Your task to perform on an android device: change the clock display to digital Image 0: 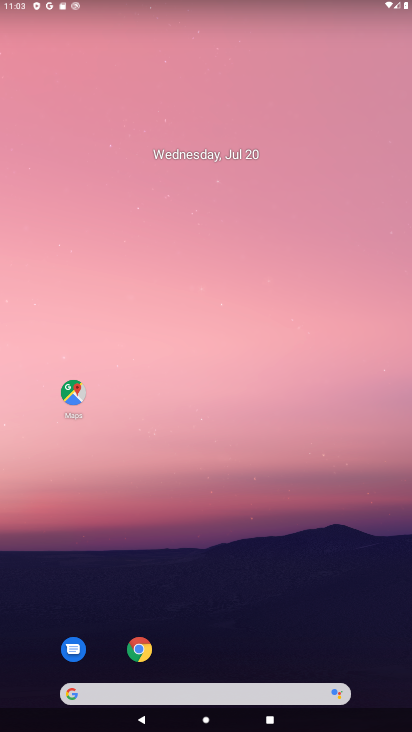
Step 0: drag from (170, 634) to (170, 450)
Your task to perform on an android device: change the clock display to digital Image 1: 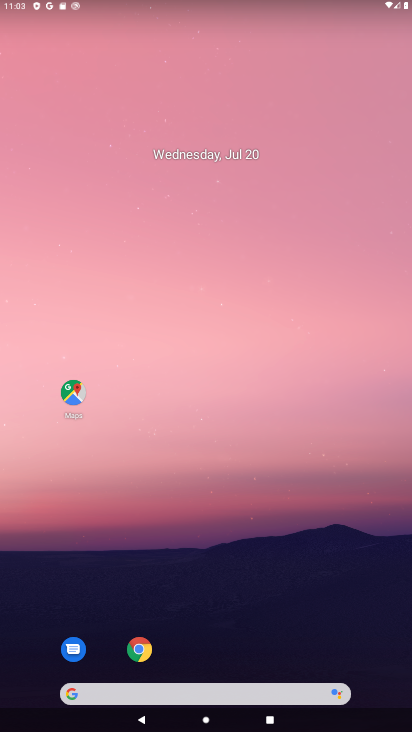
Step 1: drag from (196, 683) to (198, 112)
Your task to perform on an android device: change the clock display to digital Image 2: 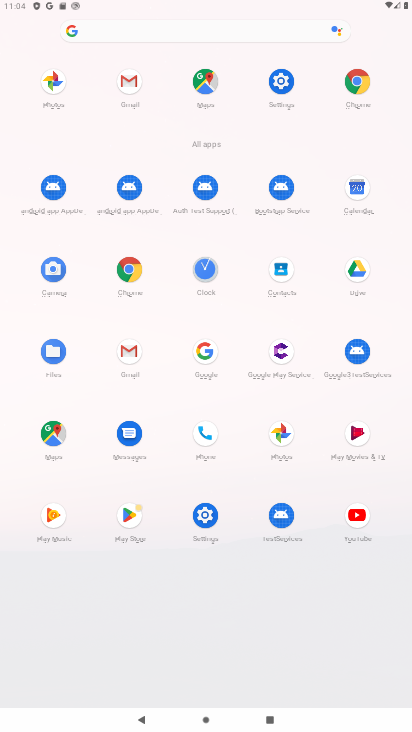
Step 2: click (203, 273)
Your task to perform on an android device: change the clock display to digital Image 3: 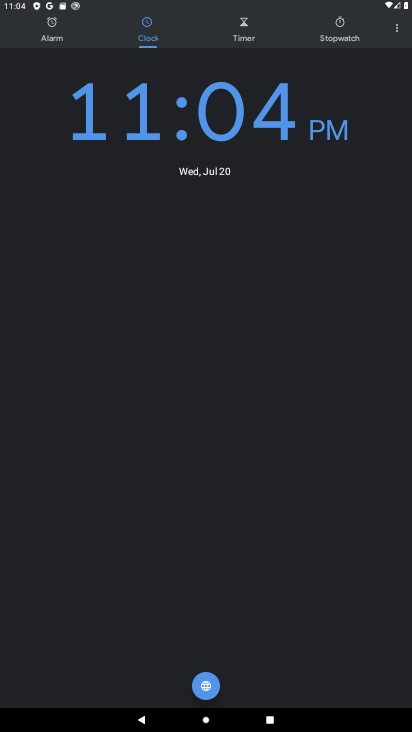
Step 3: click (395, 33)
Your task to perform on an android device: change the clock display to digital Image 4: 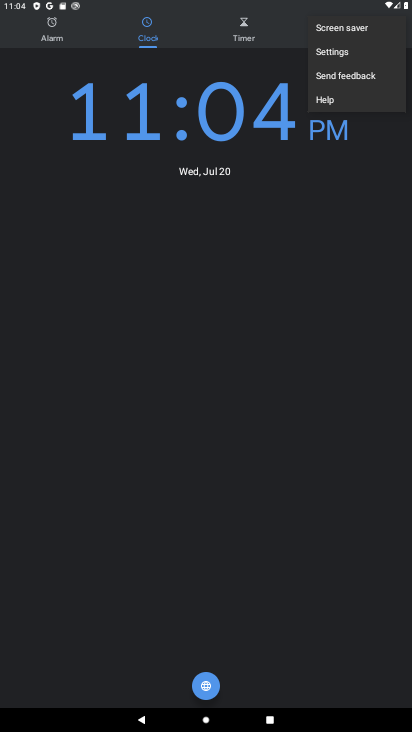
Step 4: click (348, 48)
Your task to perform on an android device: change the clock display to digital Image 5: 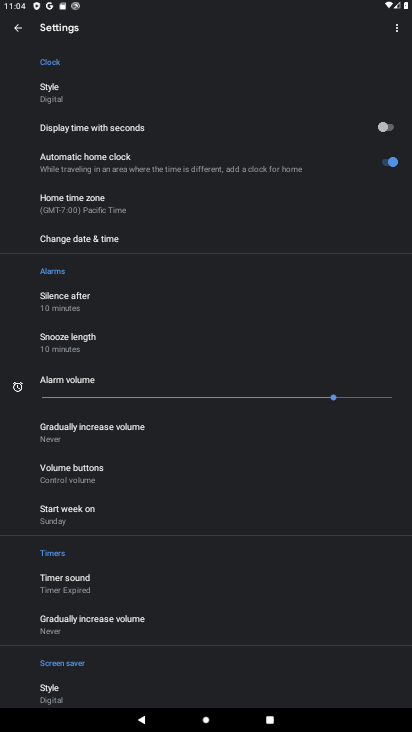
Step 5: click (75, 92)
Your task to perform on an android device: change the clock display to digital Image 6: 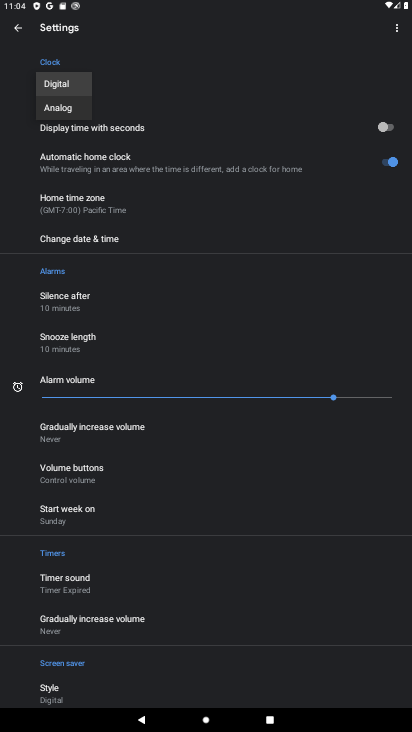
Step 6: click (53, 82)
Your task to perform on an android device: change the clock display to digital Image 7: 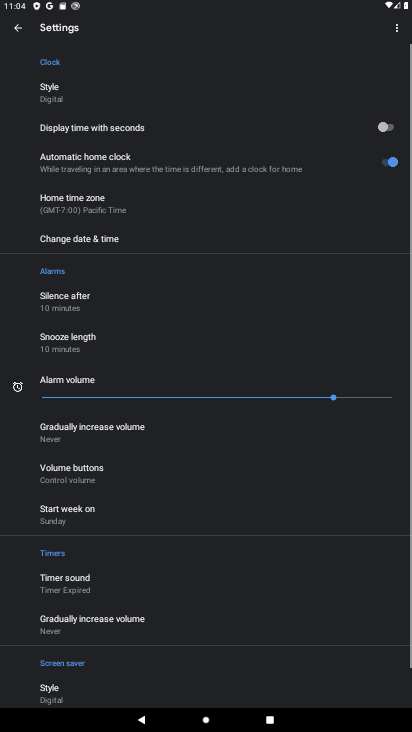
Step 7: task complete